Your task to perform on an android device: search for starred emails in the gmail app Image 0: 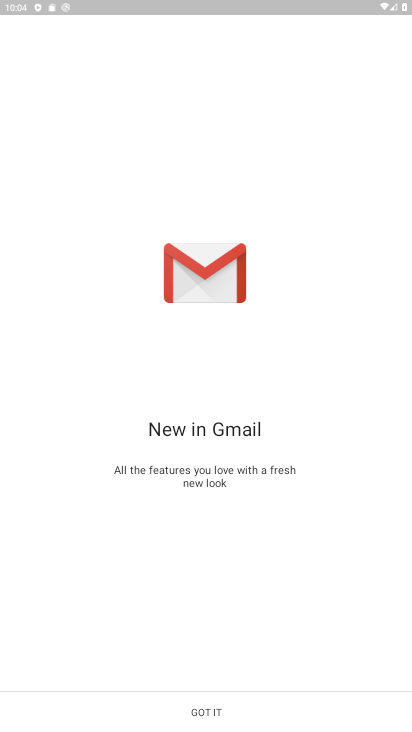
Step 0: press home button
Your task to perform on an android device: search for starred emails in the gmail app Image 1: 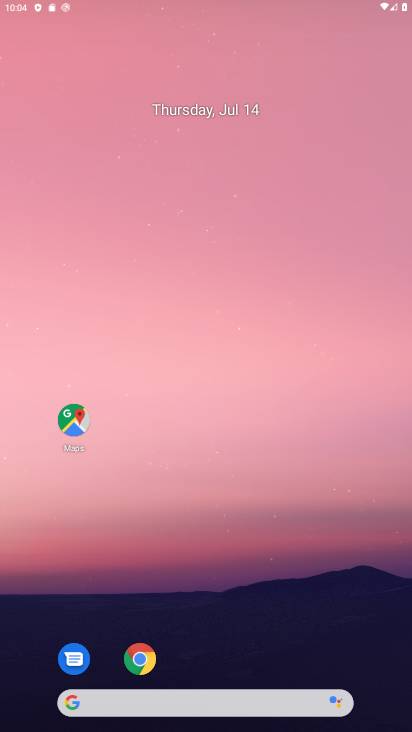
Step 1: drag from (206, 318) to (207, 268)
Your task to perform on an android device: search for starred emails in the gmail app Image 2: 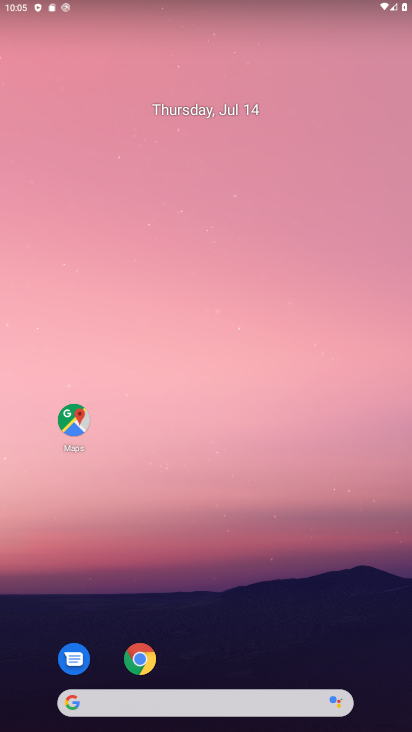
Step 2: drag from (203, 659) to (206, 240)
Your task to perform on an android device: search for starred emails in the gmail app Image 3: 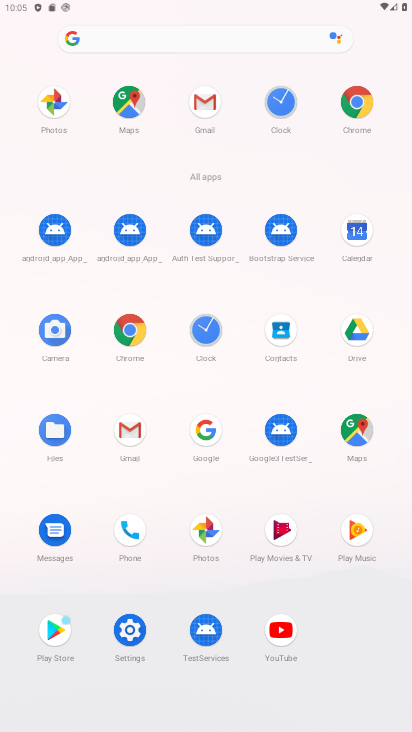
Step 3: click (206, 103)
Your task to perform on an android device: search for starred emails in the gmail app Image 4: 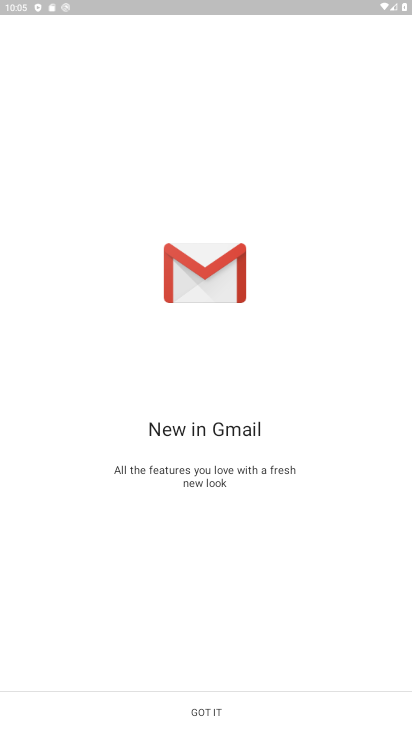
Step 4: click (221, 709)
Your task to perform on an android device: search for starred emails in the gmail app Image 5: 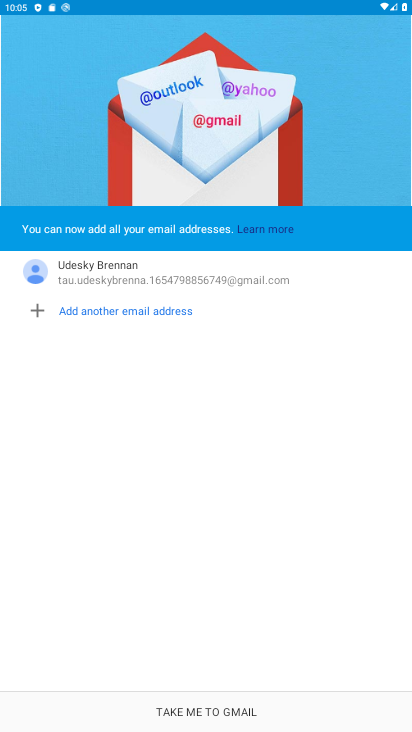
Step 5: click (192, 708)
Your task to perform on an android device: search for starred emails in the gmail app Image 6: 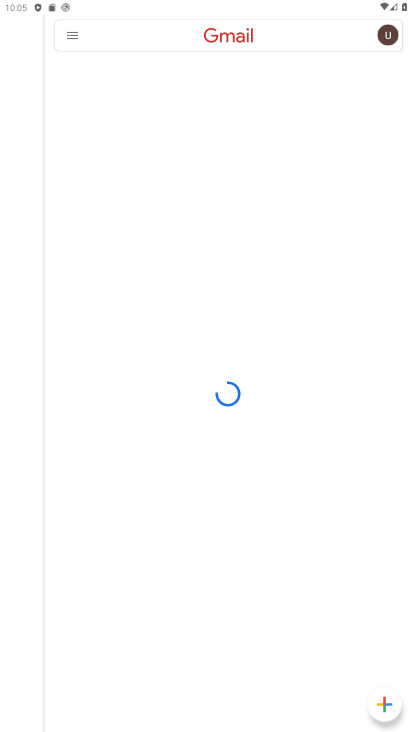
Step 6: click (20, 34)
Your task to perform on an android device: search for starred emails in the gmail app Image 7: 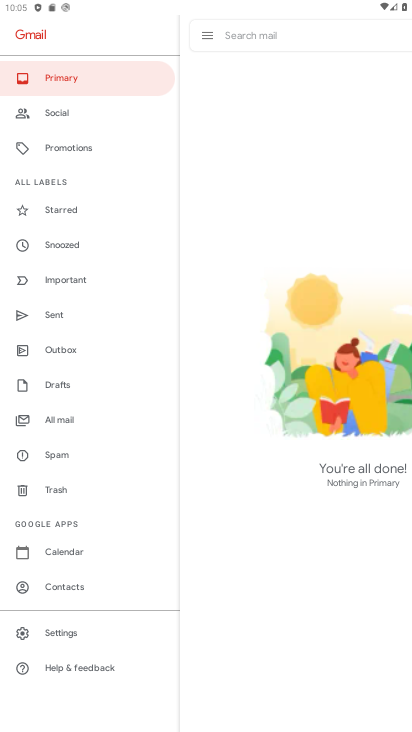
Step 7: click (60, 209)
Your task to perform on an android device: search for starred emails in the gmail app Image 8: 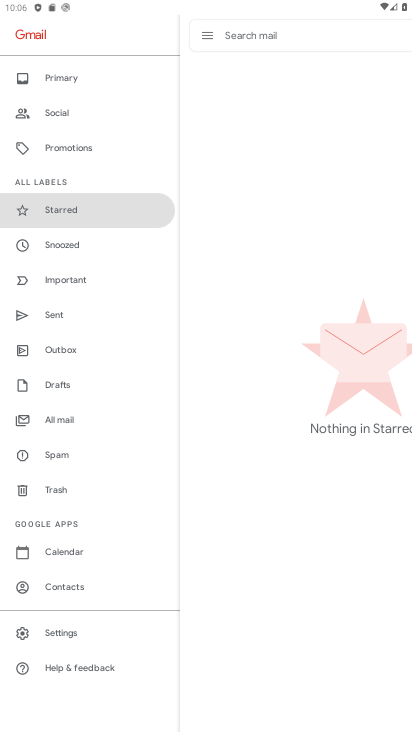
Step 8: task complete